Your task to perform on an android device: set the stopwatch Image 0: 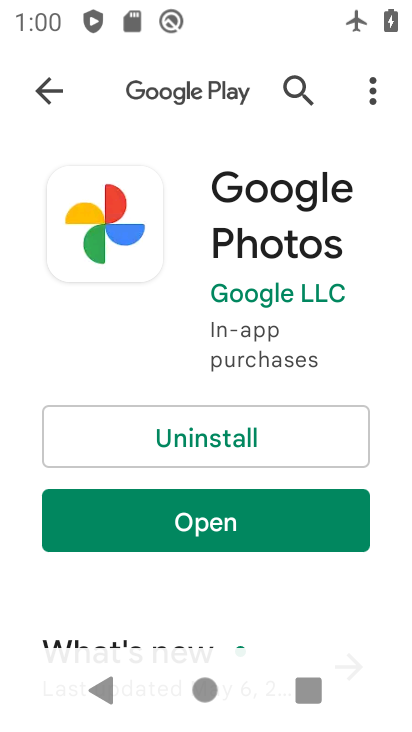
Step 0: press home button
Your task to perform on an android device: set the stopwatch Image 1: 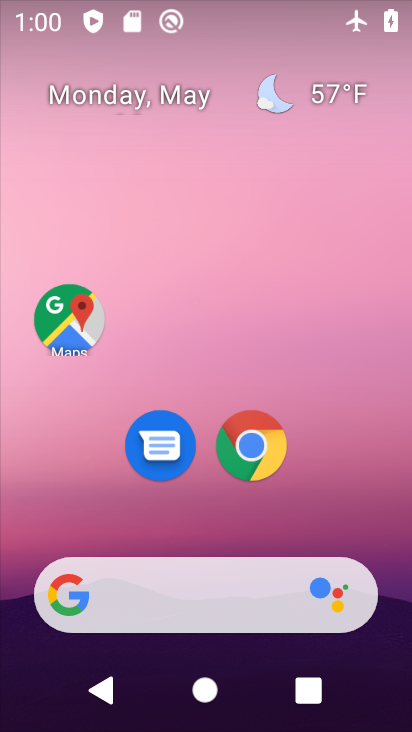
Step 1: drag from (388, 613) to (311, 151)
Your task to perform on an android device: set the stopwatch Image 2: 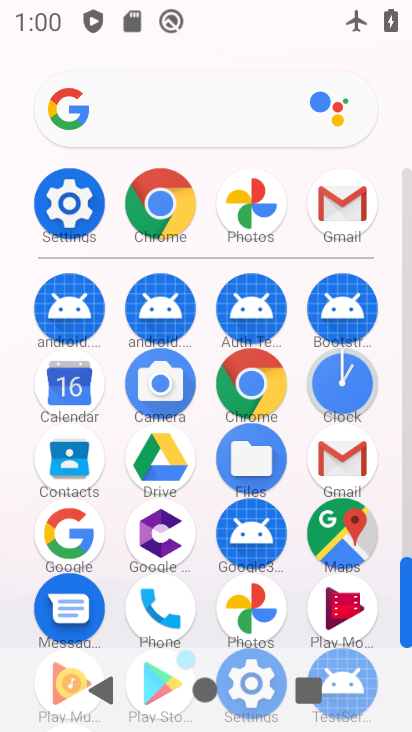
Step 2: drag from (211, 524) to (202, 236)
Your task to perform on an android device: set the stopwatch Image 3: 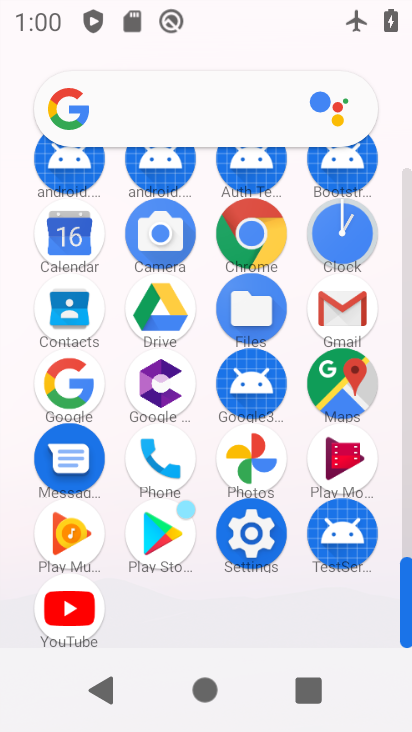
Step 3: click (341, 239)
Your task to perform on an android device: set the stopwatch Image 4: 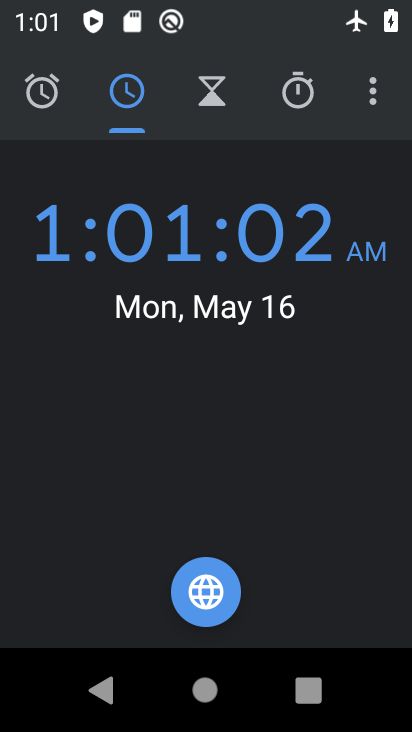
Step 4: click (288, 108)
Your task to perform on an android device: set the stopwatch Image 5: 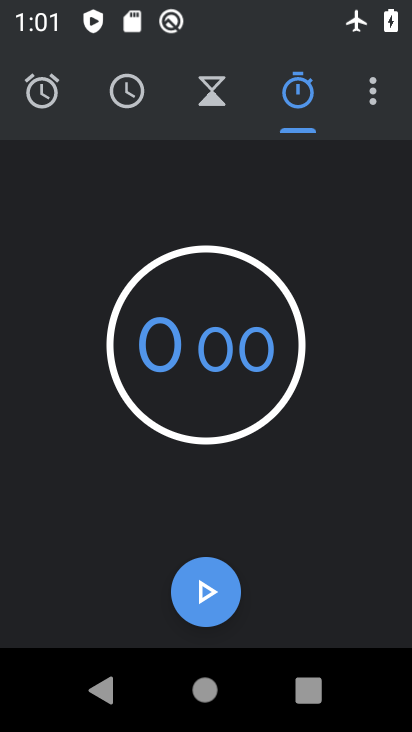
Step 5: task complete